Your task to perform on an android device: turn off translation in the chrome app Image 0: 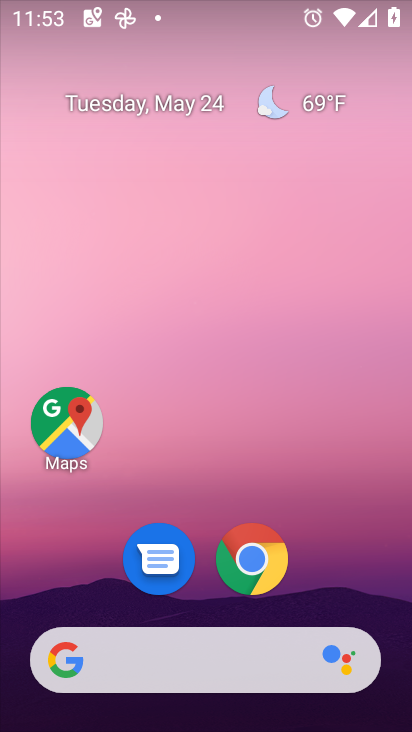
Step 0: drag from (381, 610) to (370, 89)
Your task to perform on an android device: turn off translation in the chrome app Image 1: 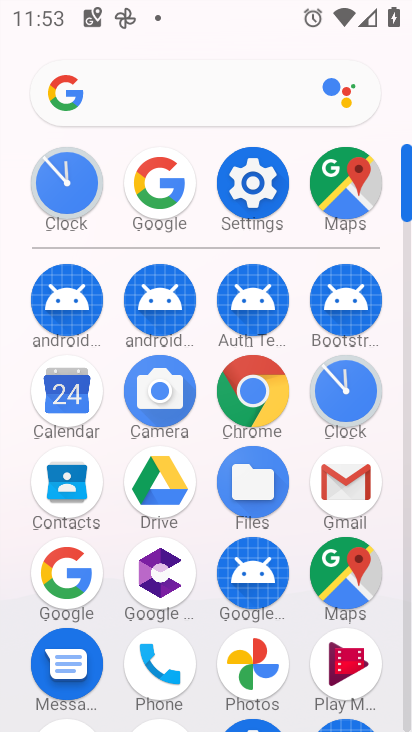
Step 1: click (257, 413)
Your task to perform on an android device: turn off translation in the chrome app Image 2: 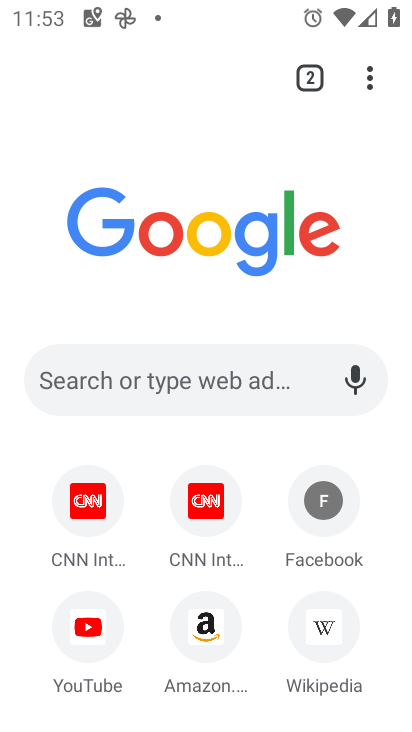
Step 2: click (365, 79)
Your task to perform on an android device: turn off translation in the chrome app Image 3: 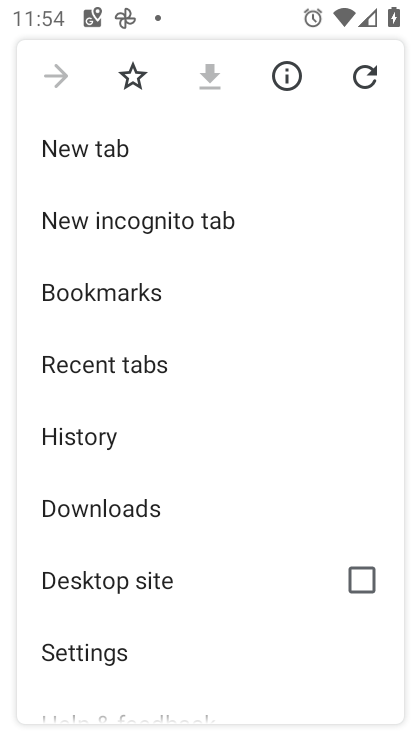
Step 3: click (114, 664)
Your task to perform on an android device: turn off translation in the chrome app Image 4: 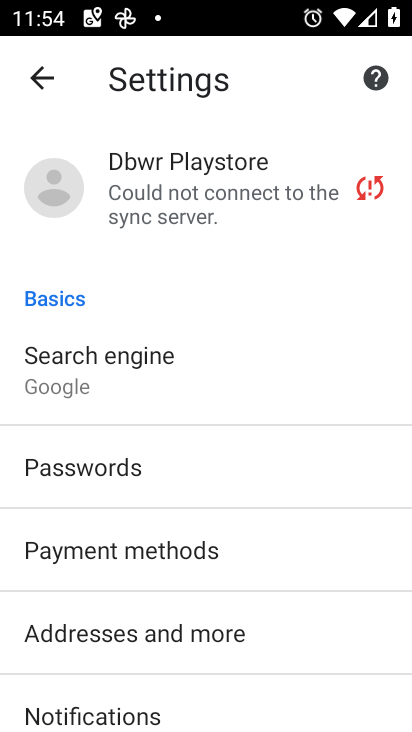
Step 4: drag from (118, 706) to (134, 277)
Your task to perform on an android device: turn off translation in the chrome app Image 5: 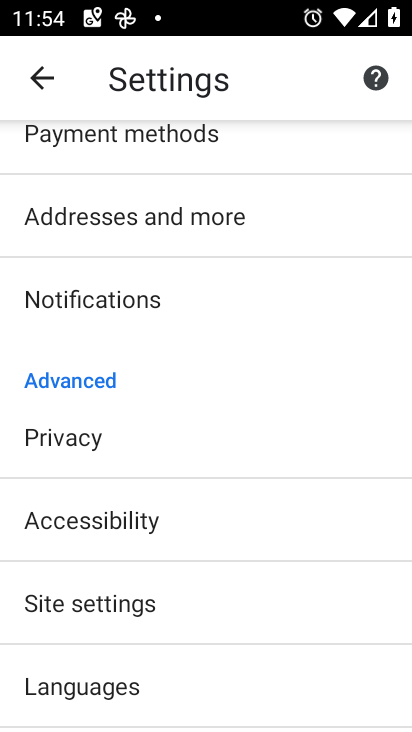
Step 5: click (192, 683)
Your task to perform on an android device: turn off translation in the chrome app Image 6: 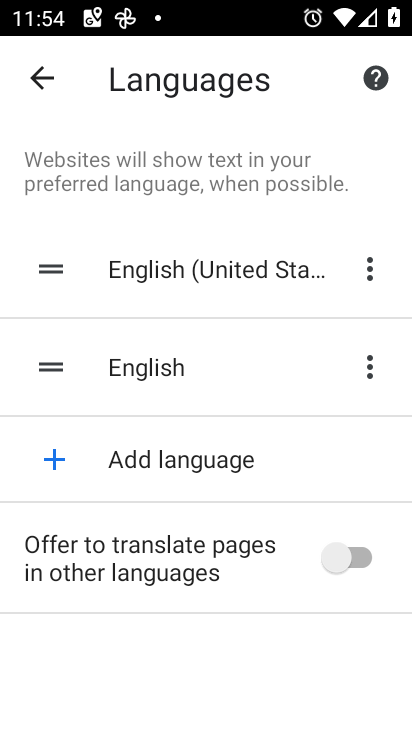
Step 6: task complete